Your task to perform on an android device: Play the last video I watched on Youtube Image 0: 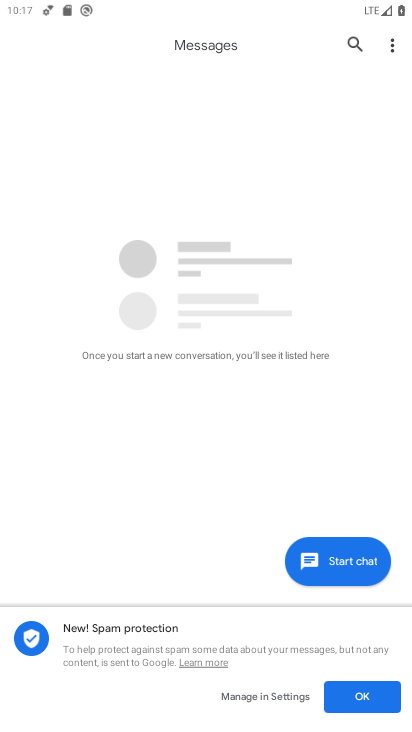
Step 0: press home button
Your task to perform on an android device: Play the last video I watched on Youtube Image 1: 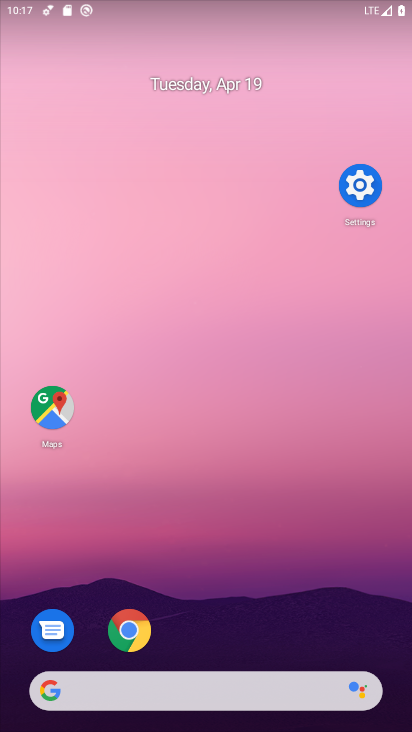
Step 1: drag from (214, 659) to (229, 38)
Your task to perform on an android device: Play the last video I watched on Youtube Image 2: 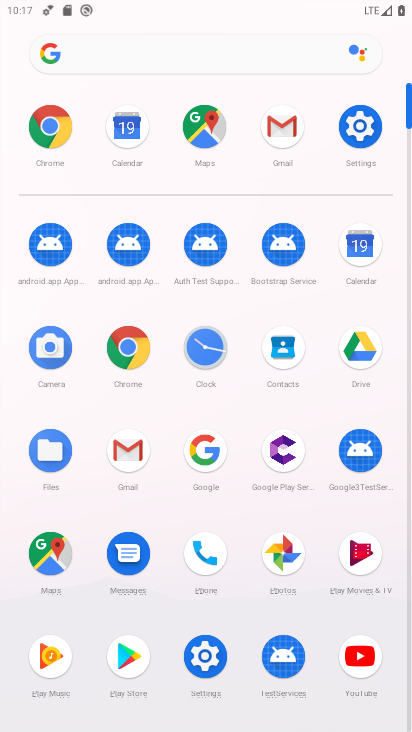
Step 2: click (366, 661)
Your task to perform on an android device: Play the last video I watched on Youtube Image 3: 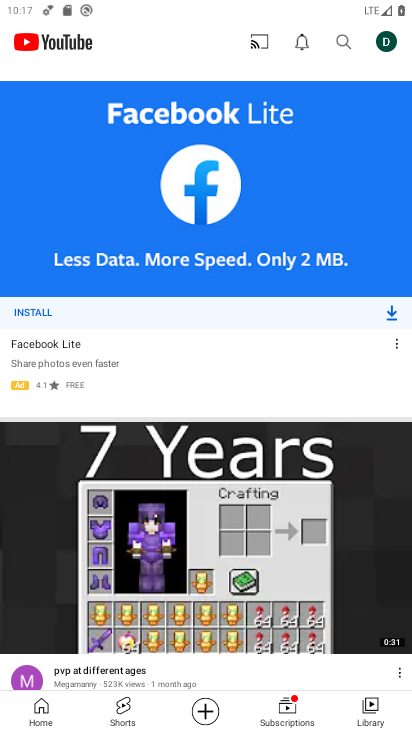
Step 3: click (378, 703)
Your task to perform on an android device: Play the last video I watched on Youtube Image 4: 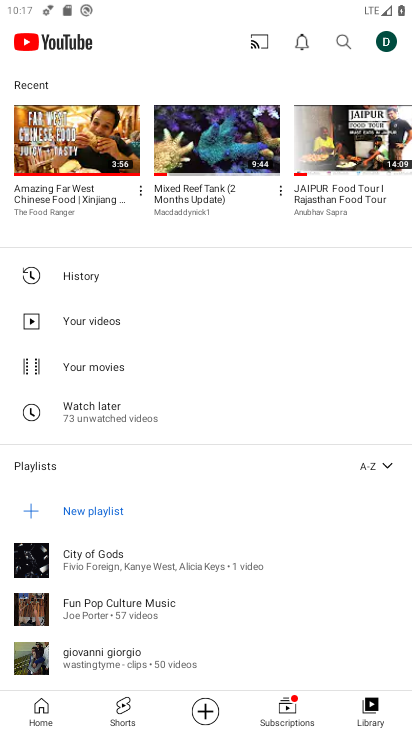
Step 4: click (52, 156)
Your task to perform on an android device: Play the last video I watched on Youtube Image 5: 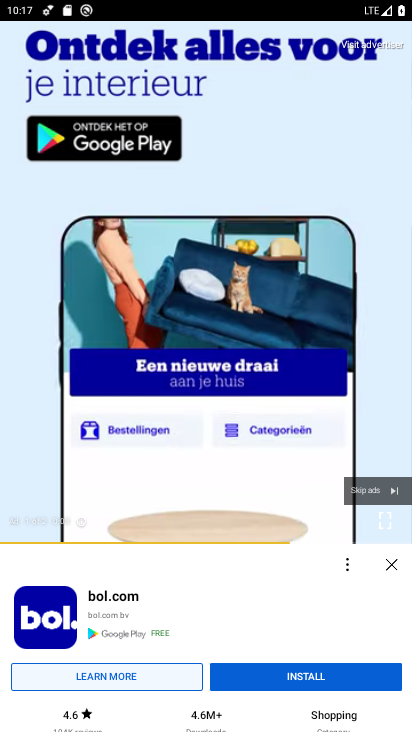
Step 5: task complete